Your task to perform on an android device: Add "lenovo thinkpad" to the cart on target.com, then select checkout. Image 0: 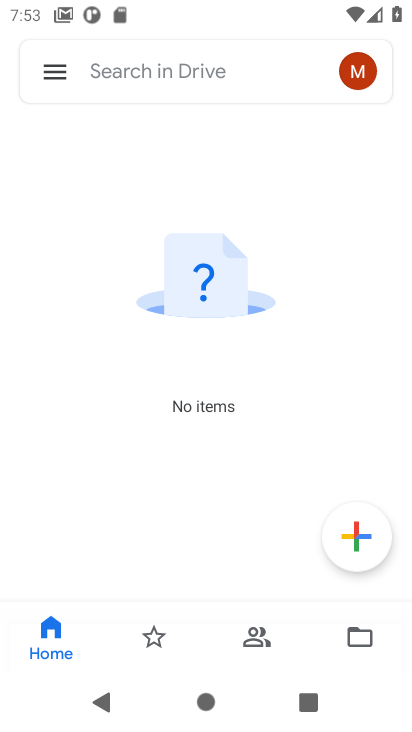
Step 0: press home button
Your task to perform on an android device: Add "lenovo thinkpad" to the cart on target.com, then select checkout. Image 1: 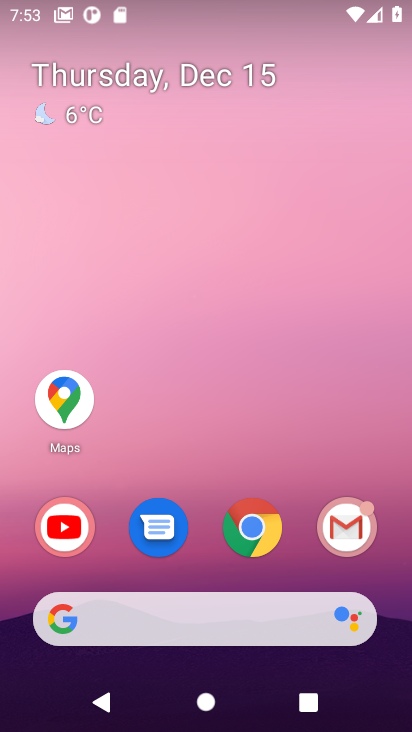
Step 1: click (263, 535)
Your task to perform on an android device: Add "lenovo thinkpad" to the cart on target.com, then select checkout. Image 2: 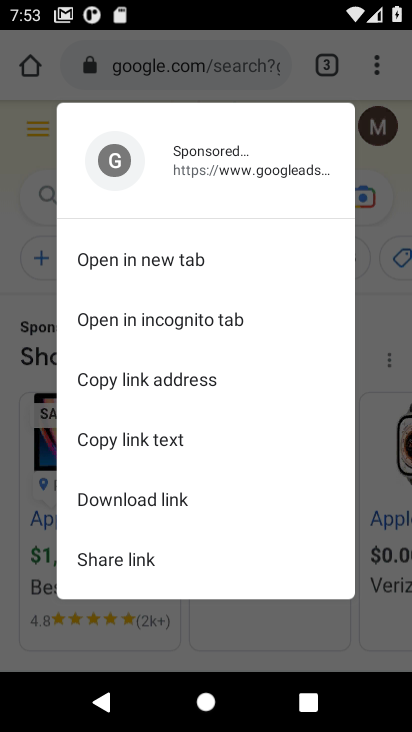
Step 2: click (373, 285)
Your task to perform on an android device: Add "lenovo thinkpad" to the cart on target.com, then select checkout. Image 3: 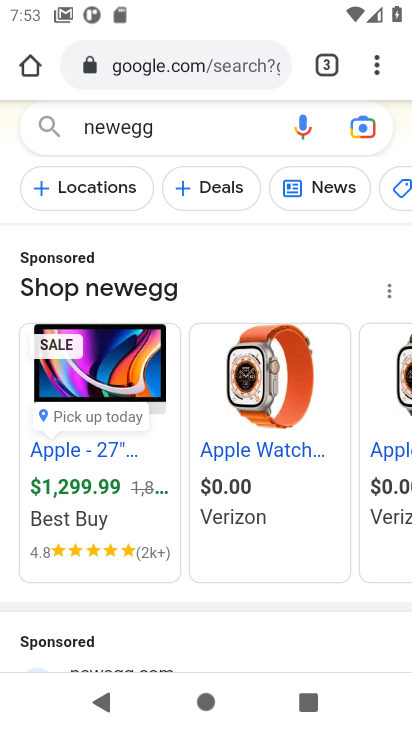
Step 3: click (168, 124)
Your task to perform on an android device: Add "lenovo thinkpad" to the cart on target.com, then select checkout. Image 4: 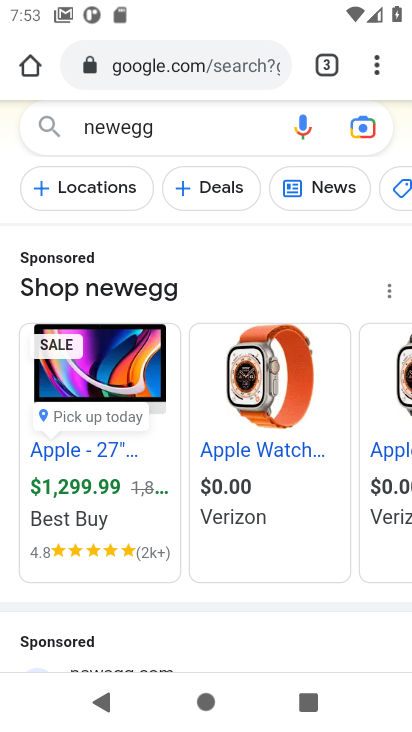
Step 4: click (168, 124)
Your task to perform on an android device: Add "lenovo thinkpad" to the cart on target.com, then select checkout. Image 5: 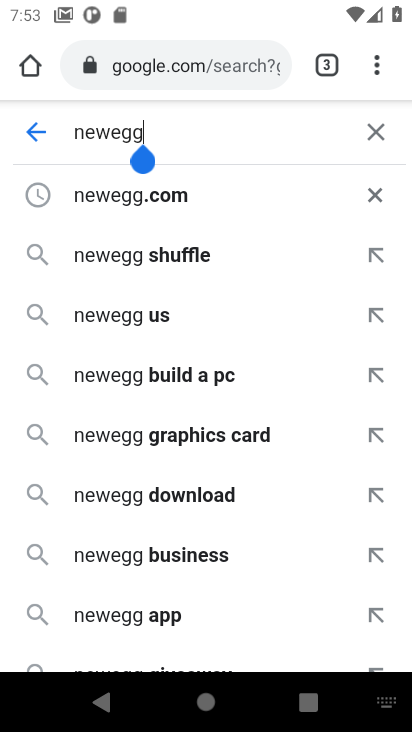
Step 5: click (369, 139)
Your task to perform on an android device: Add "lenovo thinkpad" to the cart on target.com, then select checkout. Image 6: 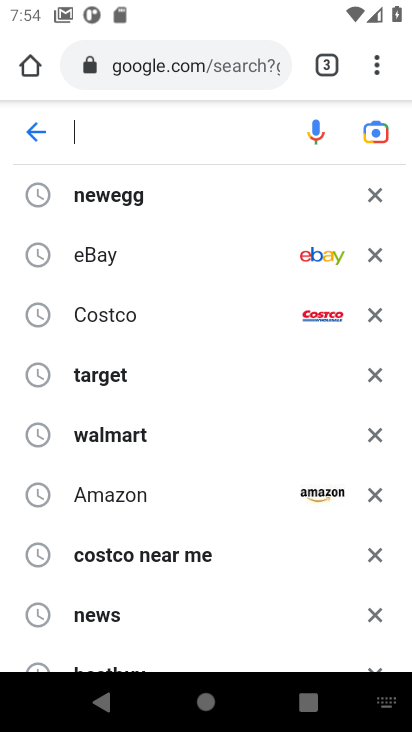
Step 6: click (106, 385)
Your task to perform on an android device: Add "lenovo thinkpad" to the cart on target.com, then select checkout. Image 7: 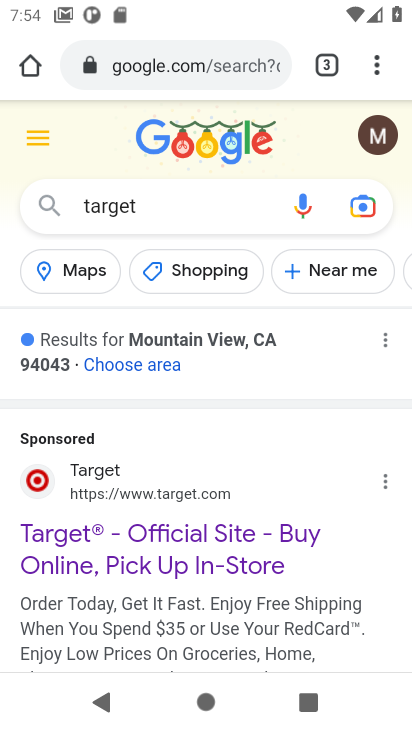
Step 7: click (86, 529)
Your task to perform on an android device: Add "lenovo thinkpad" to the cart on target.com, then select checkout. Image 8: 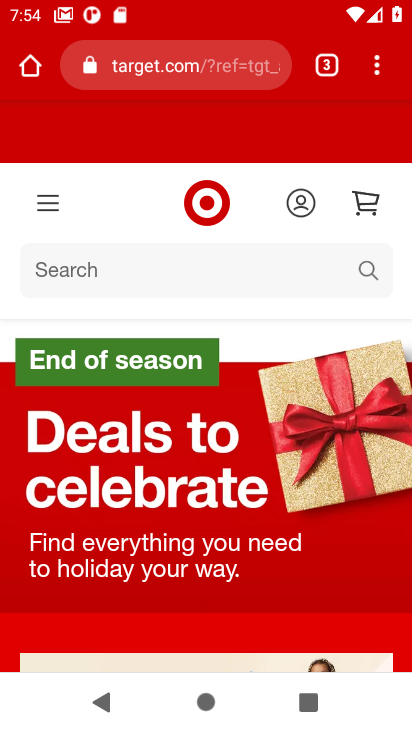
Step 8: click (79, 266)
Your task to perform on an android device: Add "lenovo thinkpad" to the cart on target.com, then select checkout. Image 9: 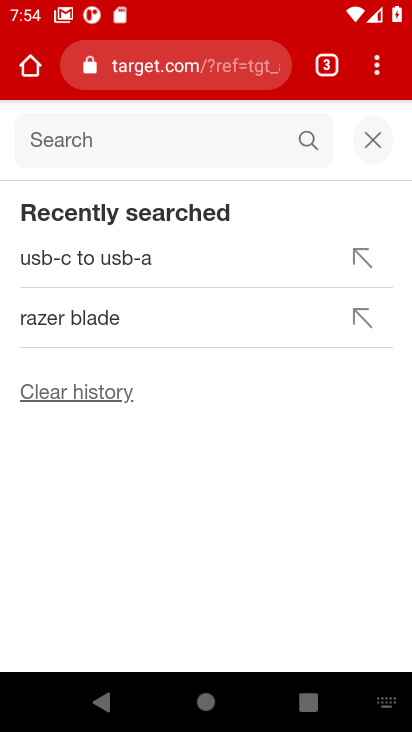
Step 9: type "lenovo think pad"
Your task to perform on an android device: Add "lenovo thinkpad" to the cart on target.com, then select checkout. Image 10: 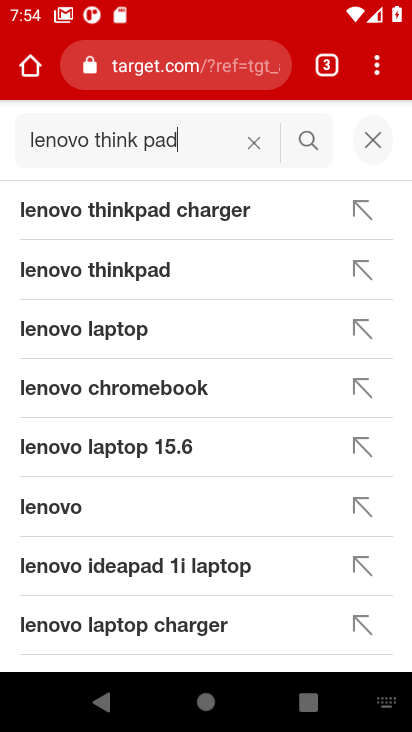
Step 10: click (134, 265)
Your task to perform on an android device: Add "lenovo thinkpad" to the cart on target.com, then select checkout. Image 11: 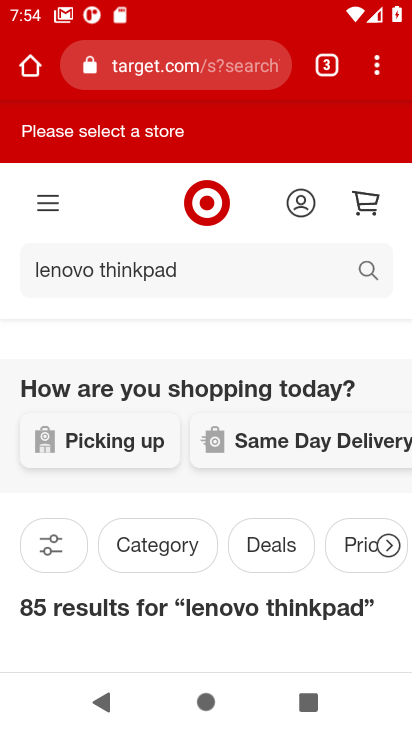
Step 11: drag from (236, 501) to (229, 278)
Your task to perform on an android device: Add "lenovo thinkpad" to the cart on target.com, then select checkout. Image 12: 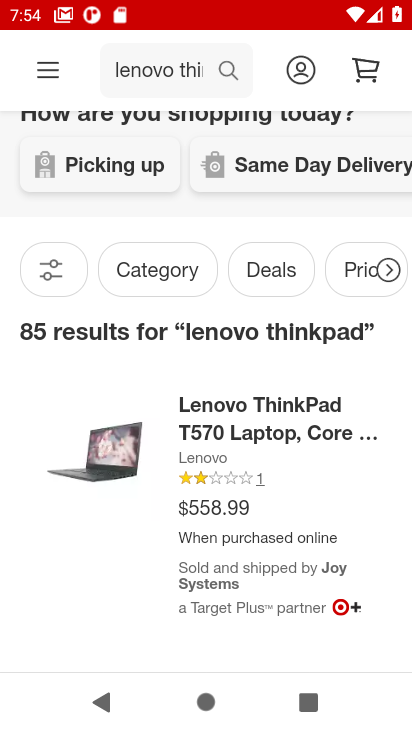
Step 12: click (208, 433)
Your task to perform on an android device: Add "lenovo thinkpad" to the cart on target.com, then select checkout. Image 13: 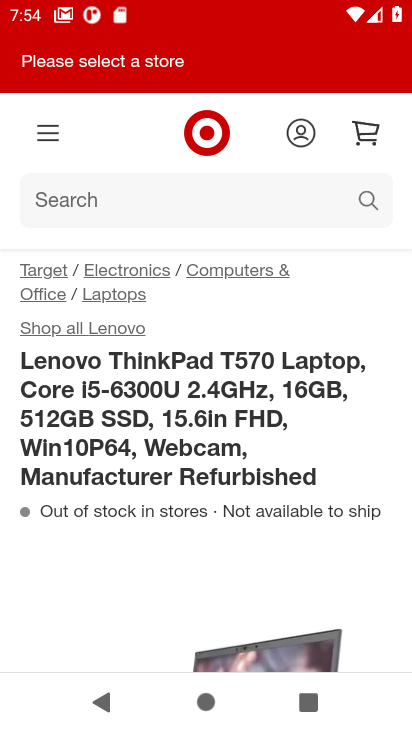
Step 13: drag from (113, 470) to (145, 263)
Your task to perform on an android device: Add "lenovo thinkpad" to the cart on target.com, then select checkout. Image 14: 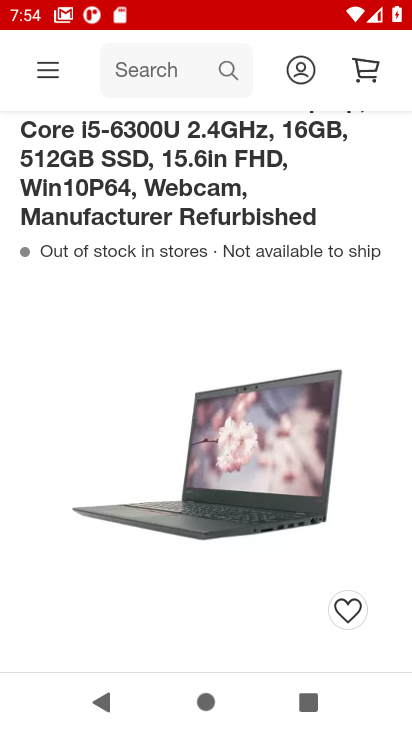
Step 14: drag from (170, 569) to (177, 336)
Your task to perform on an android device: Add "lenovo thinkpad" to the cart on target.com, then select checkout. Image 15: 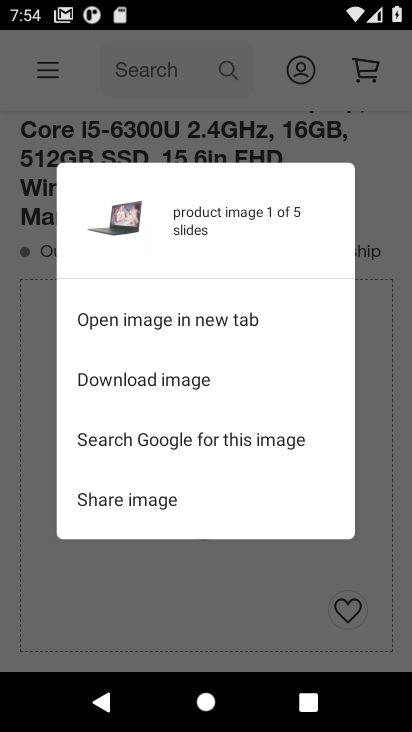
Step 15: click (158, 555)
Your task to perform on an android device: Add "lenovo thinkpad" to the cart on target.com, then select checkout. Image 16: 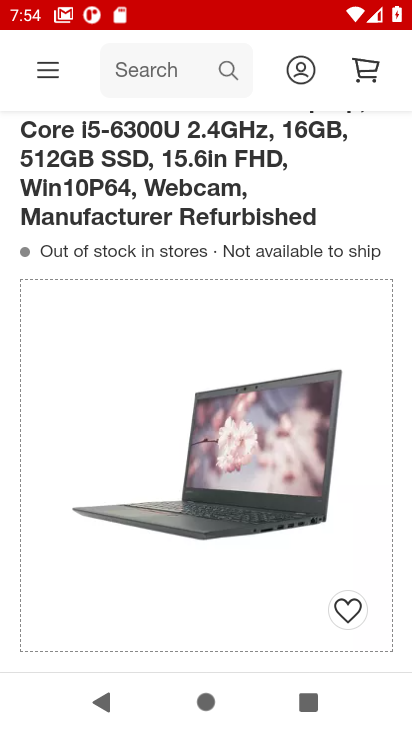
Step 16: drag from (150, 648) to (153, 364)
Your task to perform on an android device: Add "lenovo thinkpad" to the cart on target.com, then select checkout. Image 17: 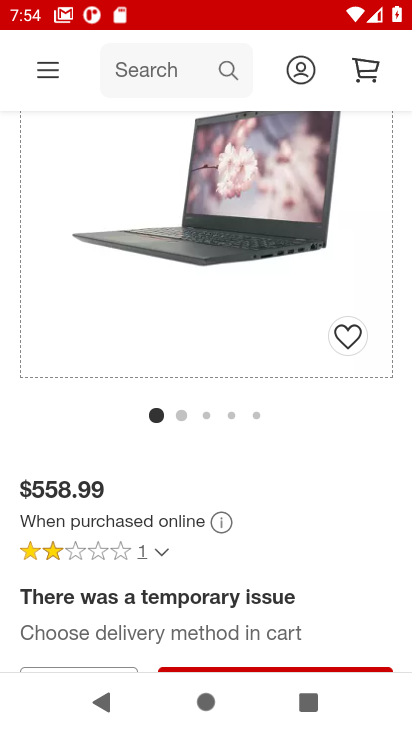
Step 17: drag from (195, 598) to (195, 426)
Your task to perform on an android device: Add "lenovo thinkpad" to the cart on target.com, then select checkout. Image 18: 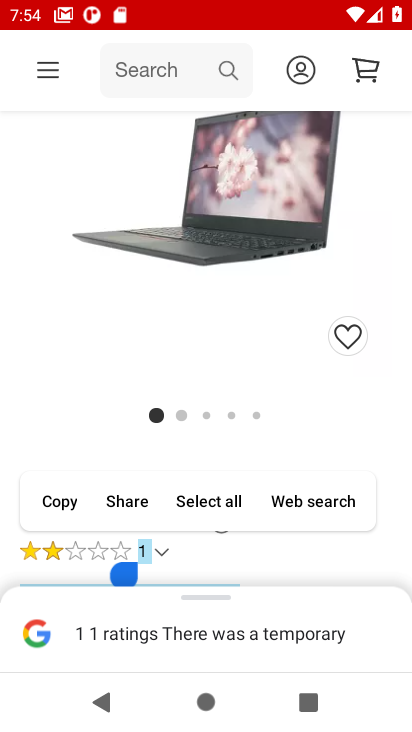
Step 18: click (308, 498)
Your task to perform on an android device: Add "lenovo thinkpad" to the cart on target.com, then select checkout. Image 19: 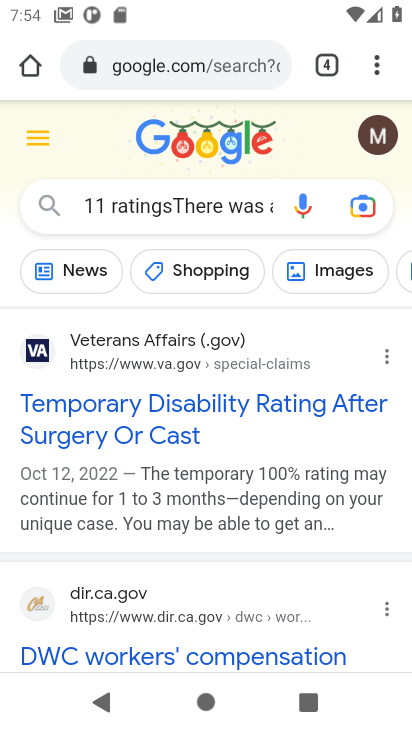
Step 19: press back button
Your task to perform on an android device: Add "lenovo thinkpad" to the cart on target.com, then select checkout. Image 20: 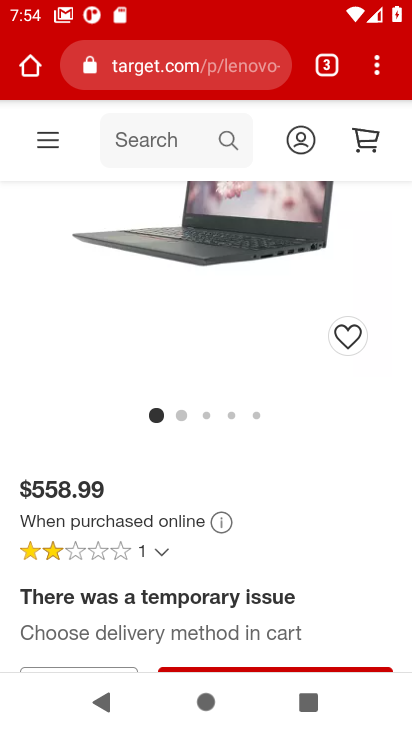
Step 20: drag from (305, 556) to (294, 340)
Your task to perform on an android device: Add "lenovo thinkpad" to the cart on target.com, then select checkout. Image 21: 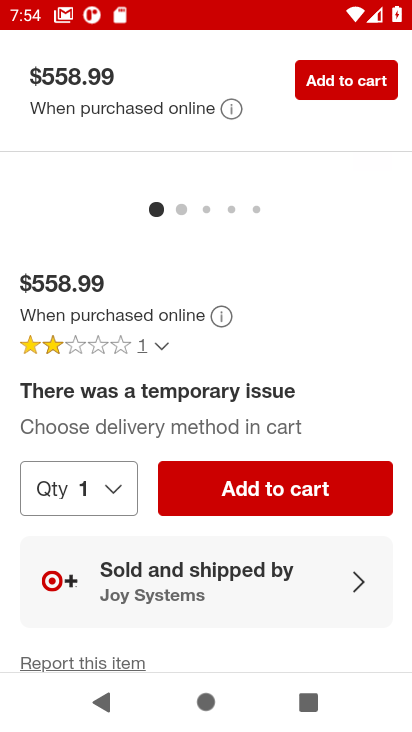
Step 21: click (253, 472)
Your task to perform on an android device: Add "lenovo thinkpad" to the cart on target.com, then select checkout. Image 22: 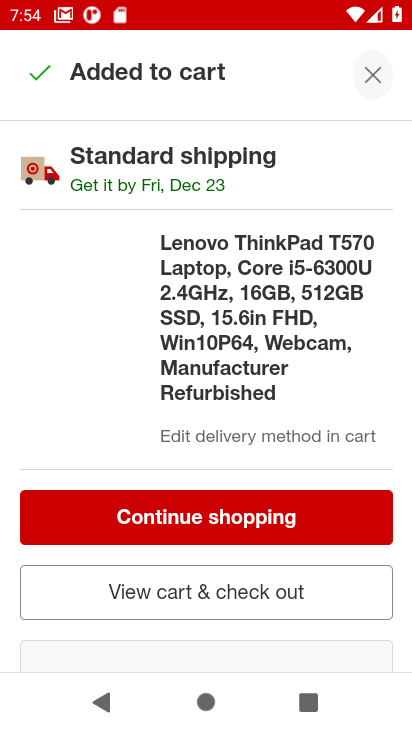
Step 22: task complete